Your task to perform on an android device: see sites visited before in the chrome app Image 0: 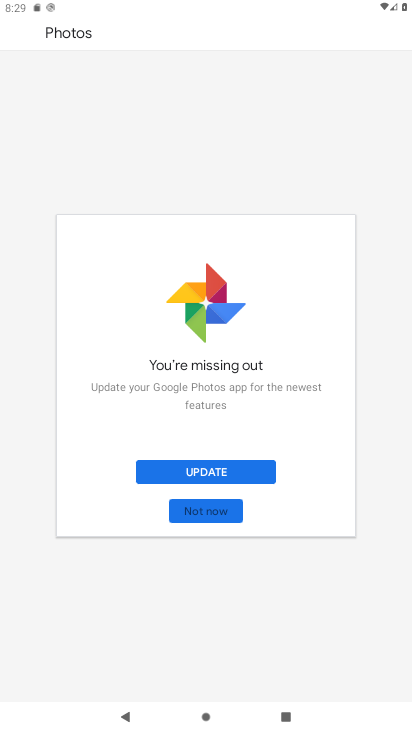
Step 0: press home button
Your task to perform on an android device: see sites visited before in the chrome app Image 1: 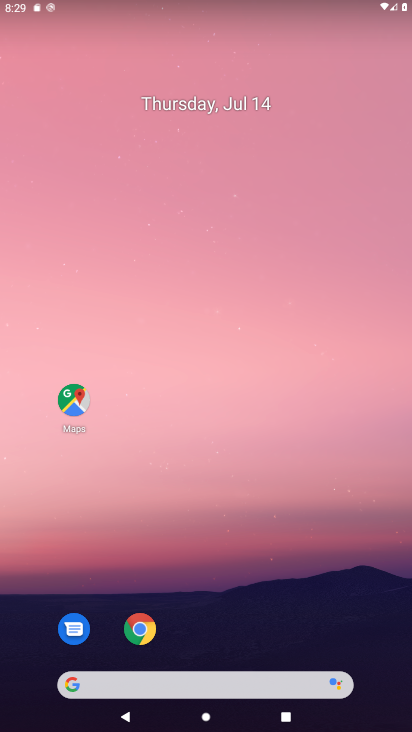
Step 1: drag from (217, 634) to (257, 38)
Your task to perform on an android device: see sites visited before in the chrome app Image 2: 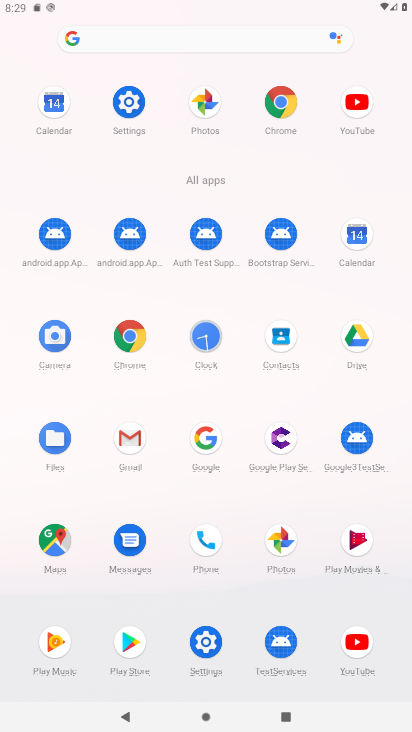
Step 2: click (115, 357)
Your task to perform on an android device: see sites visited before in the chrome app Image 3: 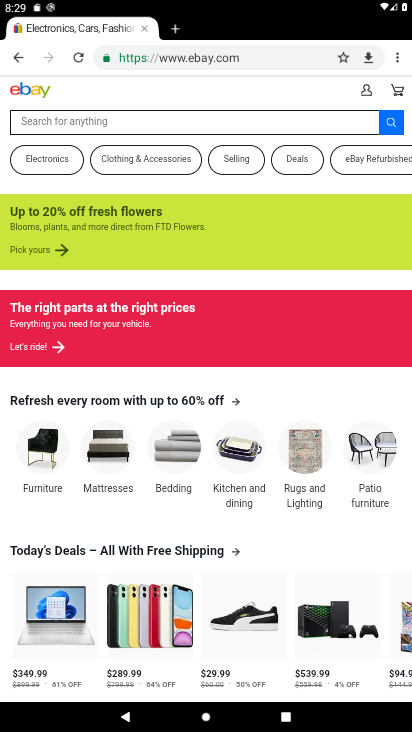
Step 3: click (400, 56)
Your task to perform on an android device: see sites visited before in the chrome app Image 4: 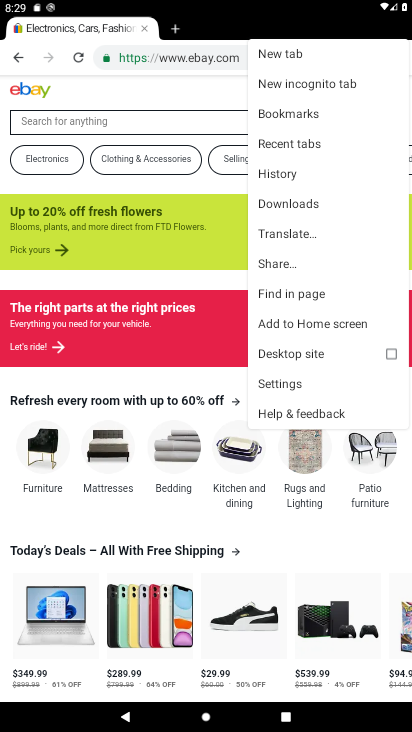
Step 4: click (285, 174)
Your task to perform on an android device: see sites visited before in the chrome app Image 5: 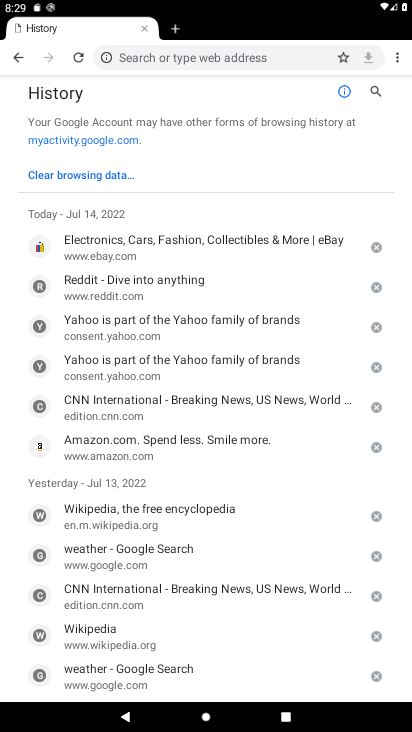
Step 5: task complete